Your task to perform on an android device: see creations saved in the google photos Image 0: 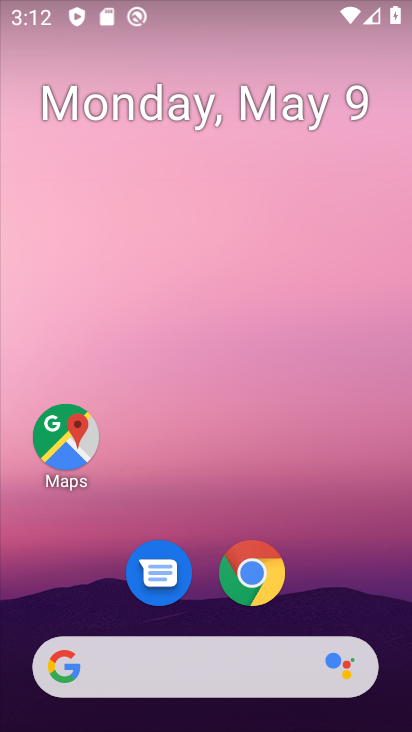
Step 0: drag from (207, 601) to (162, 101)
Your task to perform on an android device: see creations saved in the google photos Image 1: 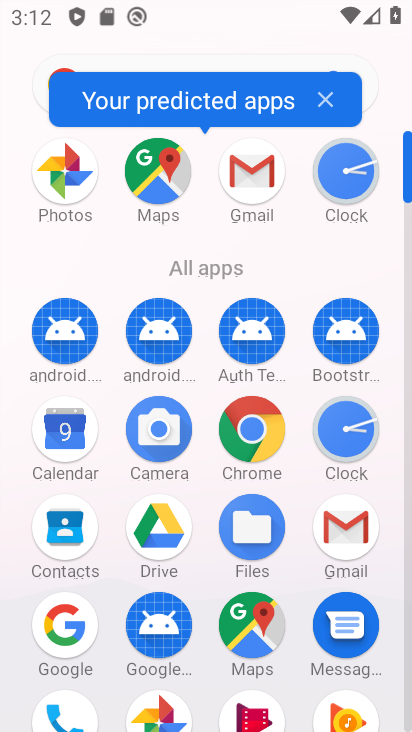
Step 1: click (63, 171)
Your task to perform on an android device: see creations saved in the google photos Image 2: 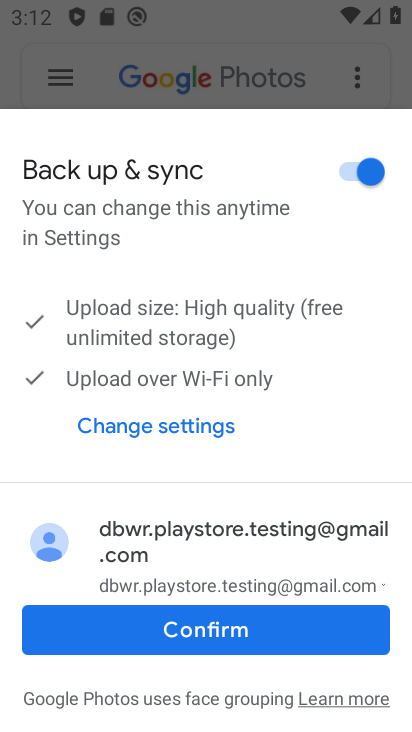
Step 2: click (185, 630)
Your task to perform on an android device: see creations saved in the google photos Image 3: 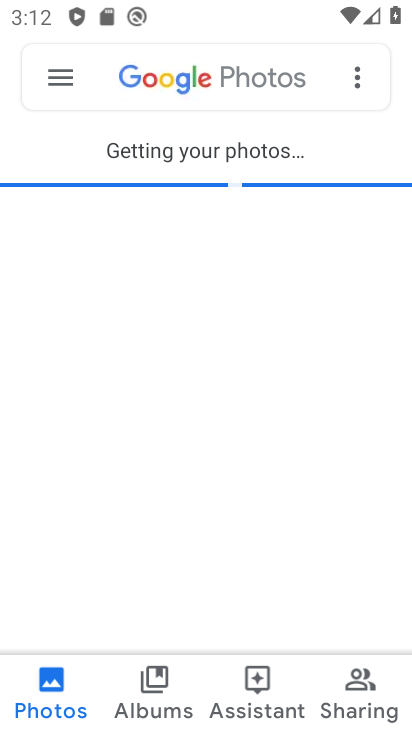
Step 3: click (175, 88)
Your task to perform on an android device: see creations saved in the google photos Image 4: 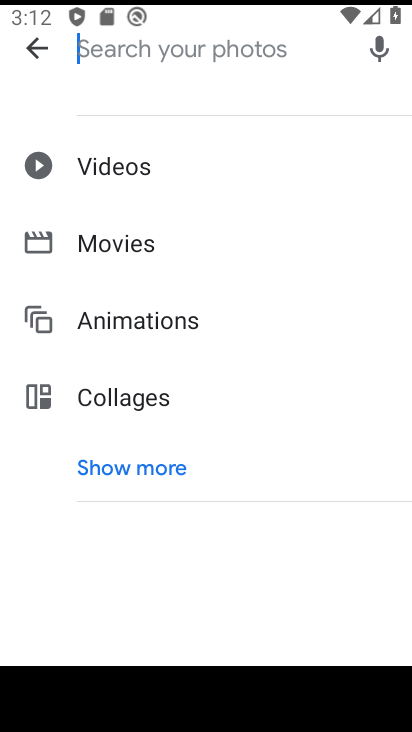
Step 4: click (112, 463)
Your task to perform on an android device: see creations saved in the google photos Image 5: 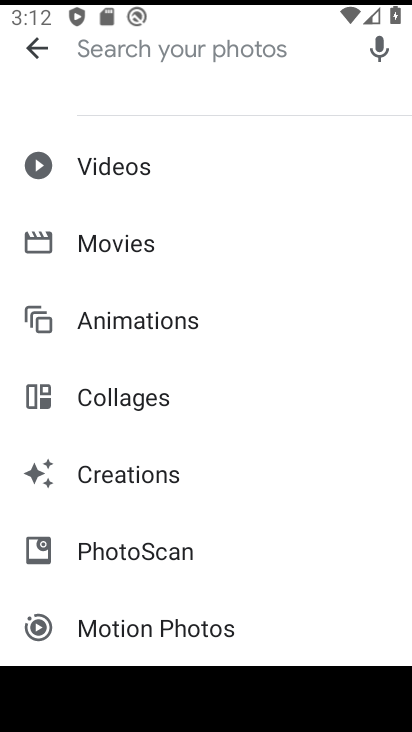
Step 5: click (102, 465)
Your task to perform on an android device: see creations saved in the google photos Image 6: 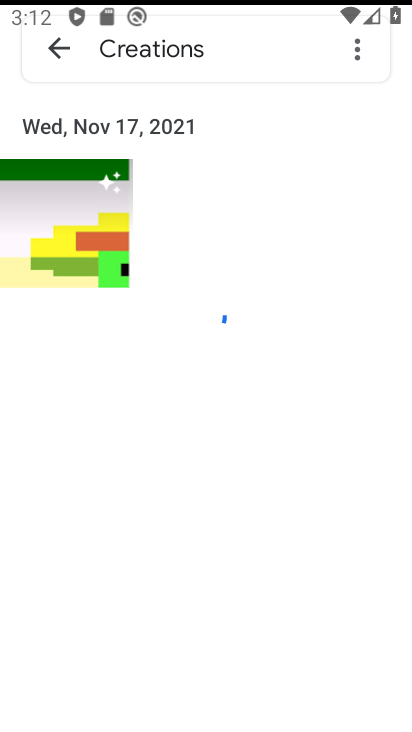
Step 6: task complete